Your task to perform on an android device: empty trash in google photos Image 0: 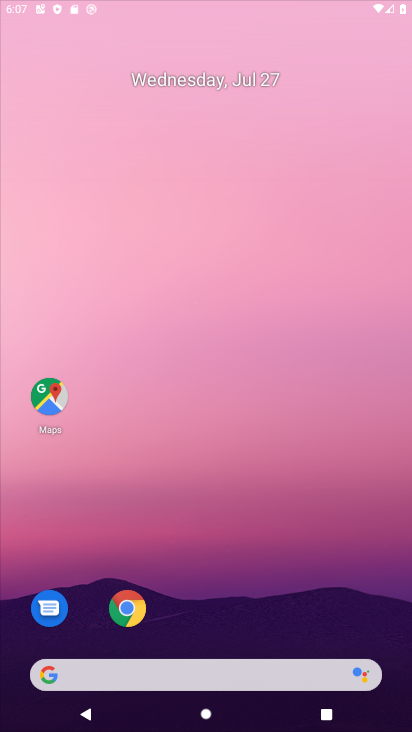
Step 0: press home button
Your task to perform on an android device: empty trash in google photos Image 1: 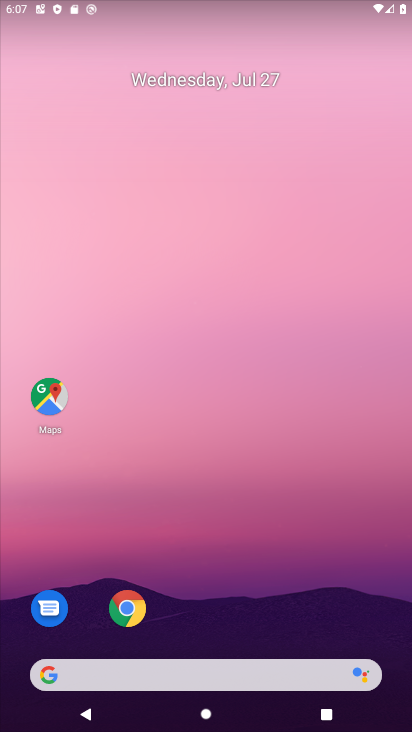
Step 1: drag from (219, 622) to (296, 24)
Your task to perform on an android device: empty trash in google photos Image 2: 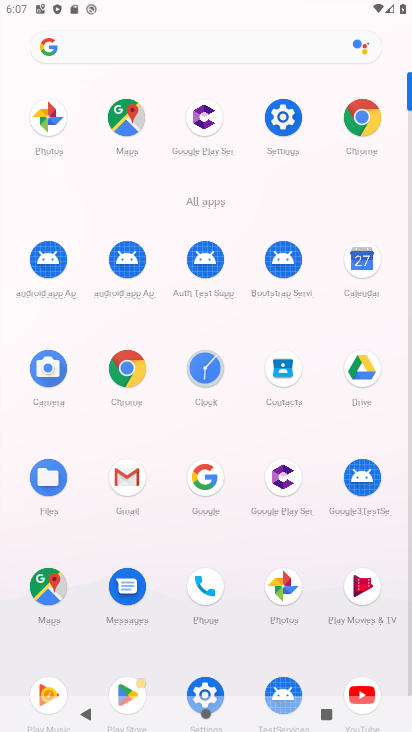
Step 2: click (45, 114)
Your task to perform on an android device: empty trash in google photos Image 3: 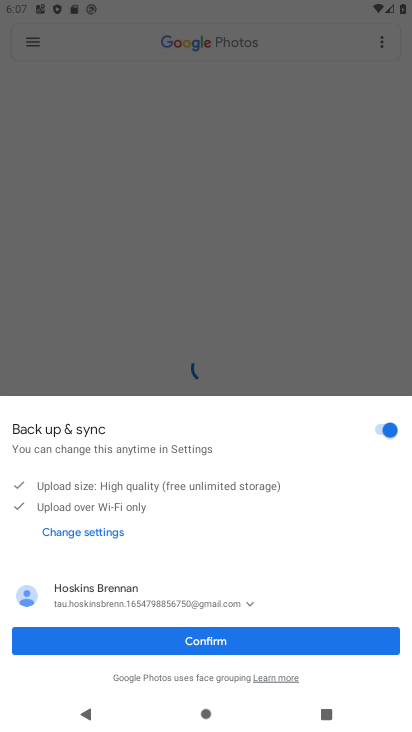
Step 3: click (142, 644)
Your task to perform on an android device: empty trash in google photos Image 4: 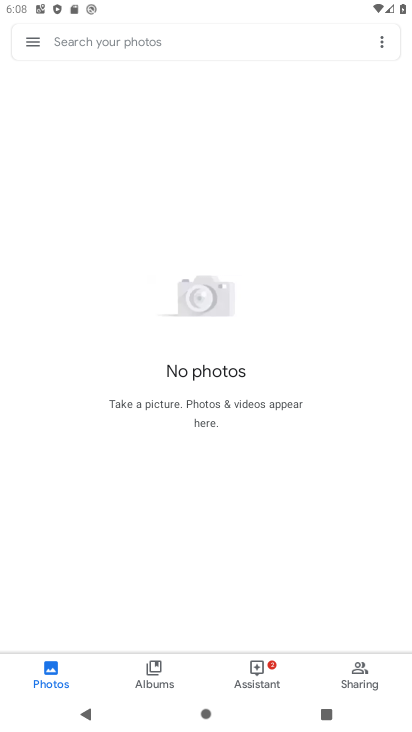
Step 4: click (30, 39)
Your task to perform on an android device: empty trash in google photos Image 5: 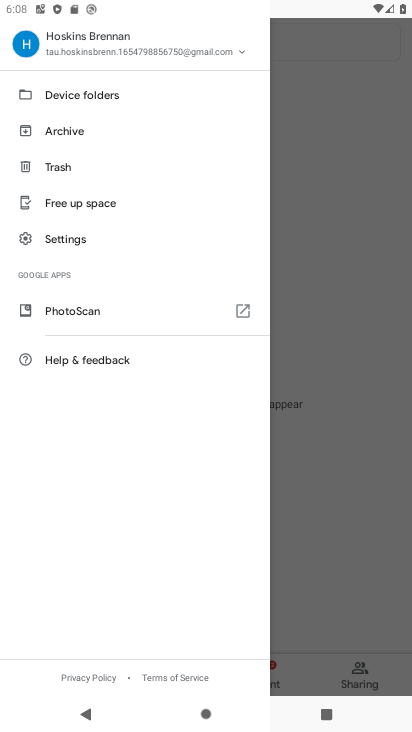
Step 5: click (60, 165)
Your task to perform on an android device: empty trash in google photos Image 6: 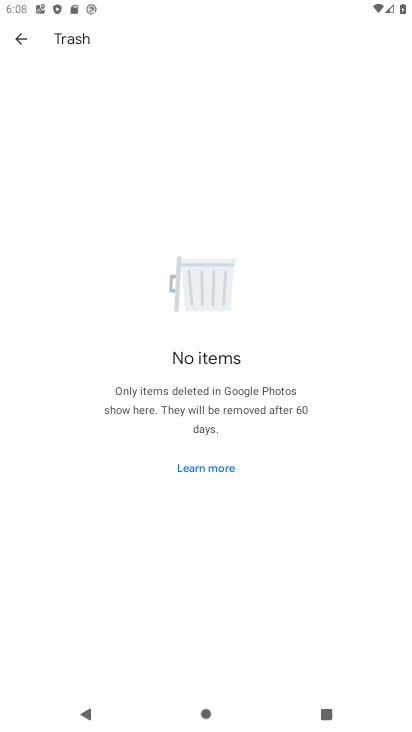
Step 6: task complete